Your task to perform on an android device: find photos in the google photos app Image 0: 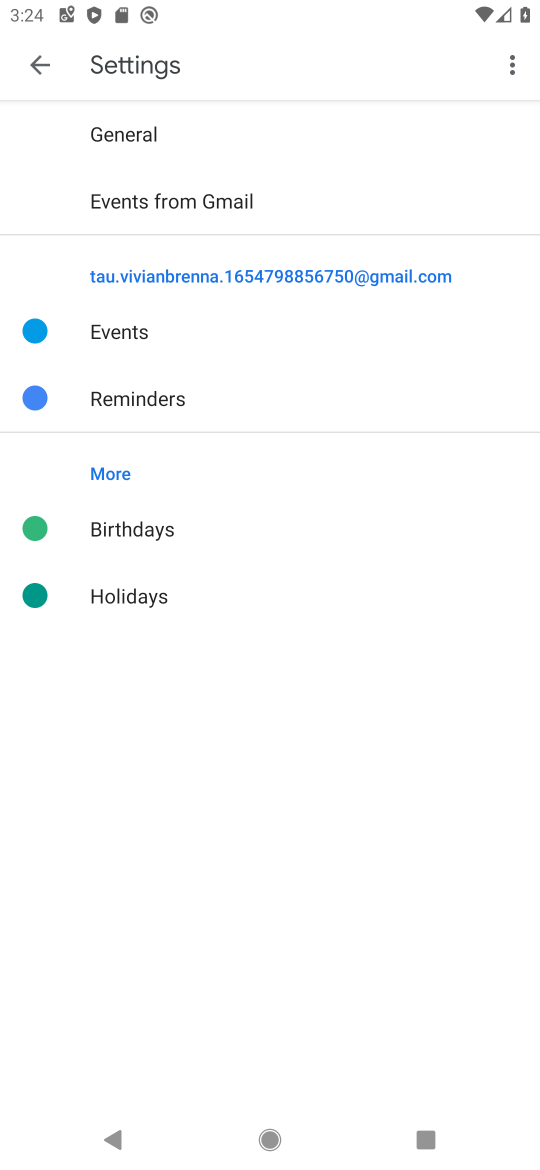
Step 0: press home button
Your task to perform on an android device: find photos in the google photos app Image 1: 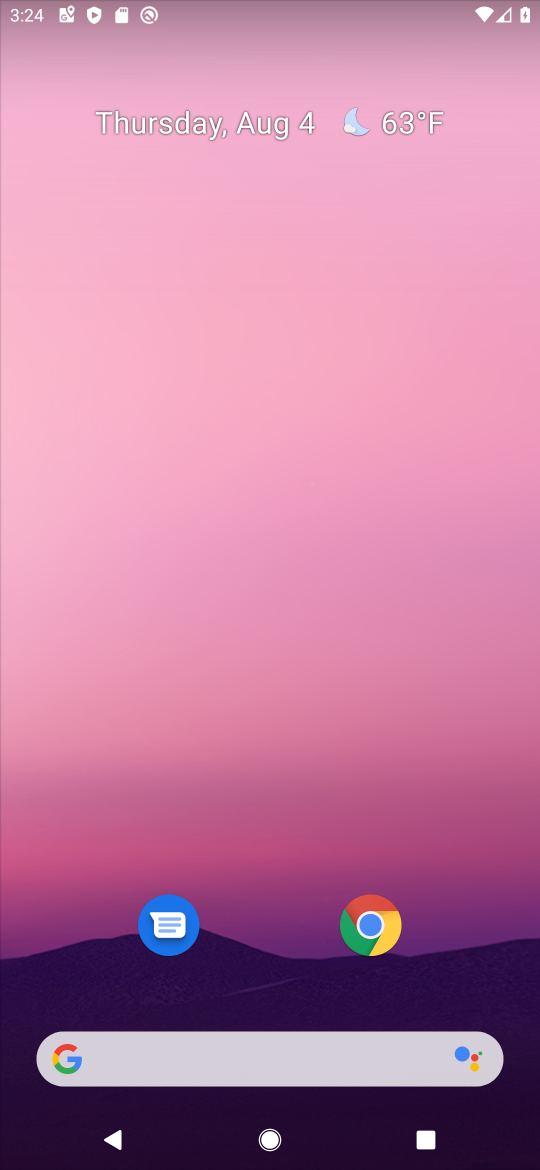
Step 1: drag from (253, 967) to (391, 57)
Your task to perform on an android device: find photos in the google photos app Image 2: 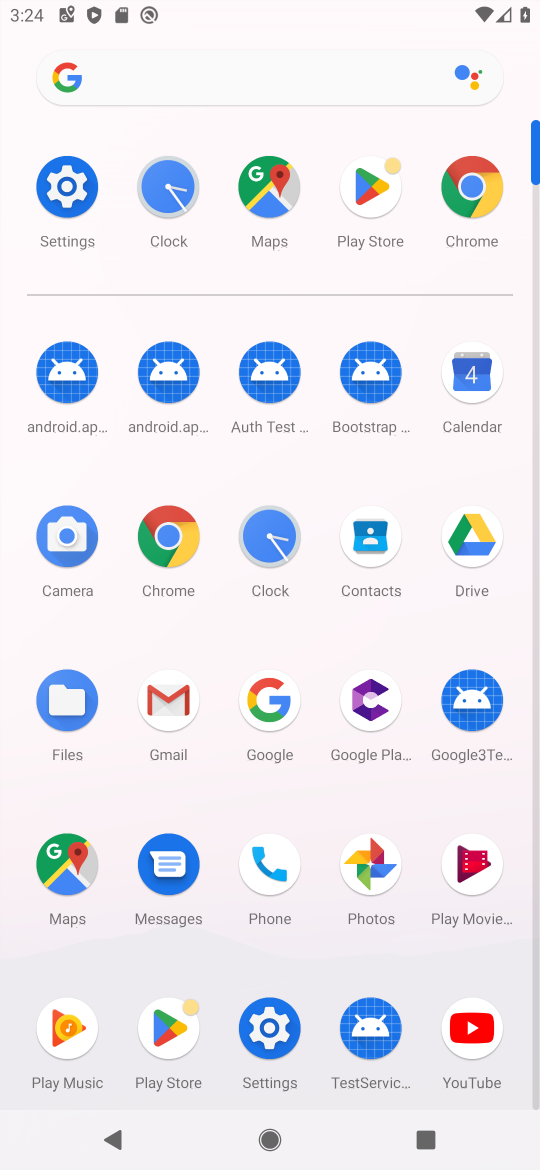
Step 2: click (367, 881)
Your task to perform on an android device: find photos in the google photos app Image 3: 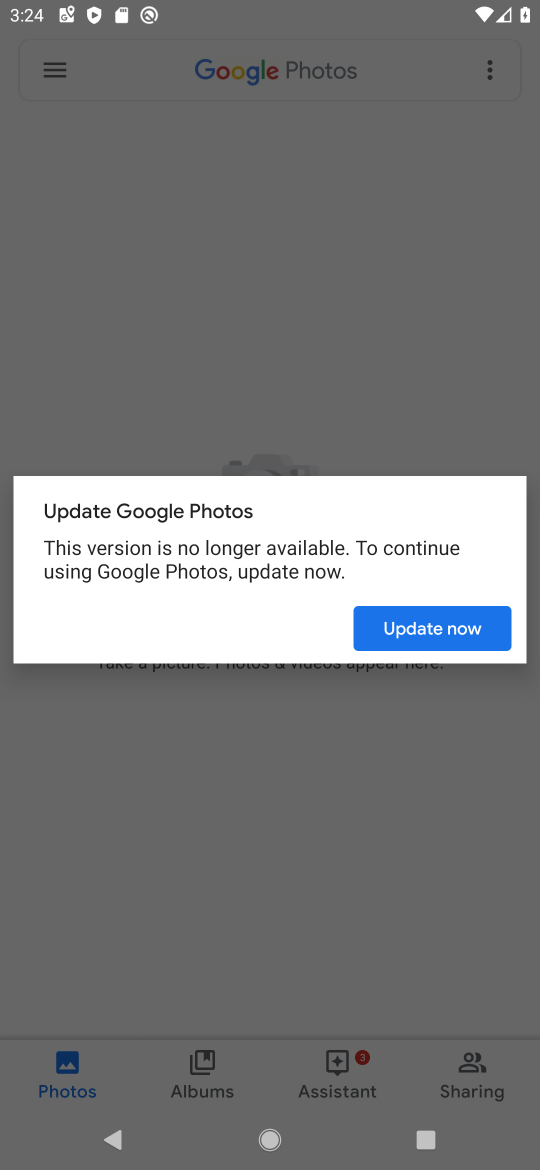
Step 3: click (457, 637)
Your task to perform on an android device: find photos in the google photos app Image 4: 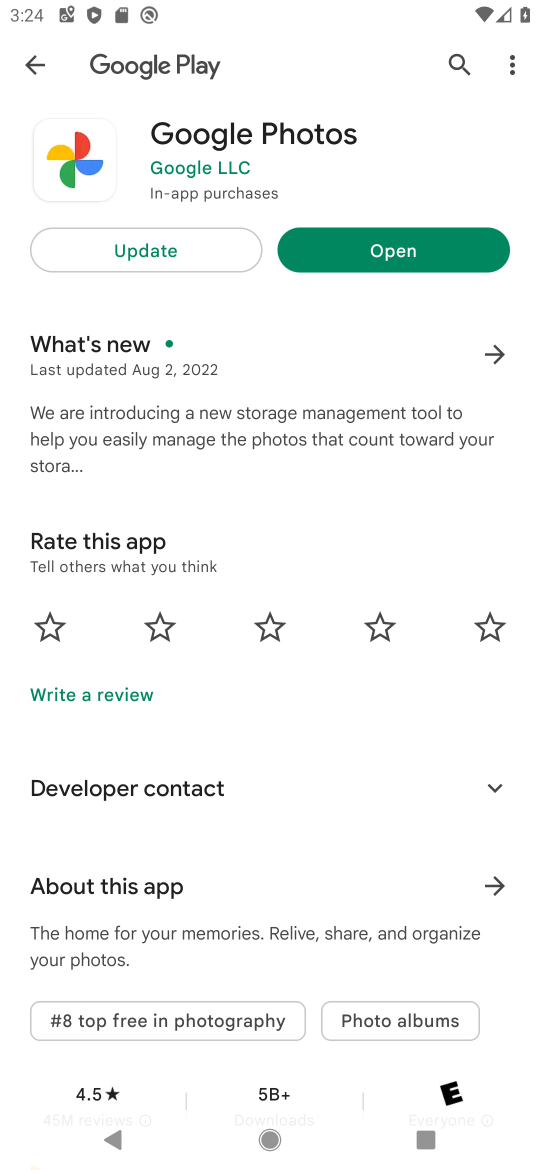
Step 4: click (196, 260)
Your task to perform on an android device: find photos in the google photos app Image 5: 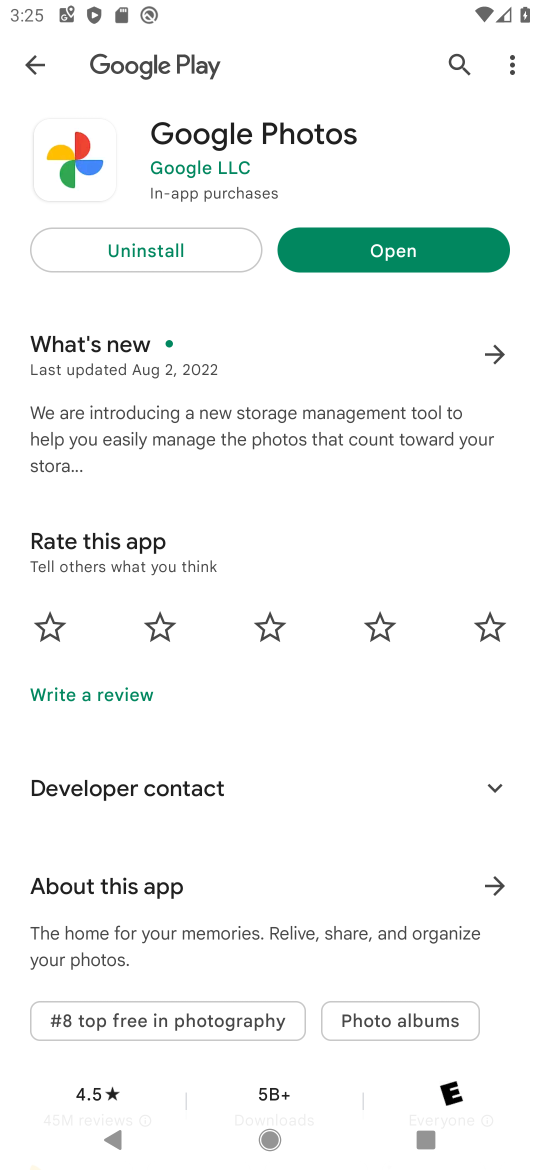
Step 5: click (421, 258)
Your task to perform on an android device: find photos in the google photos app Image 6: 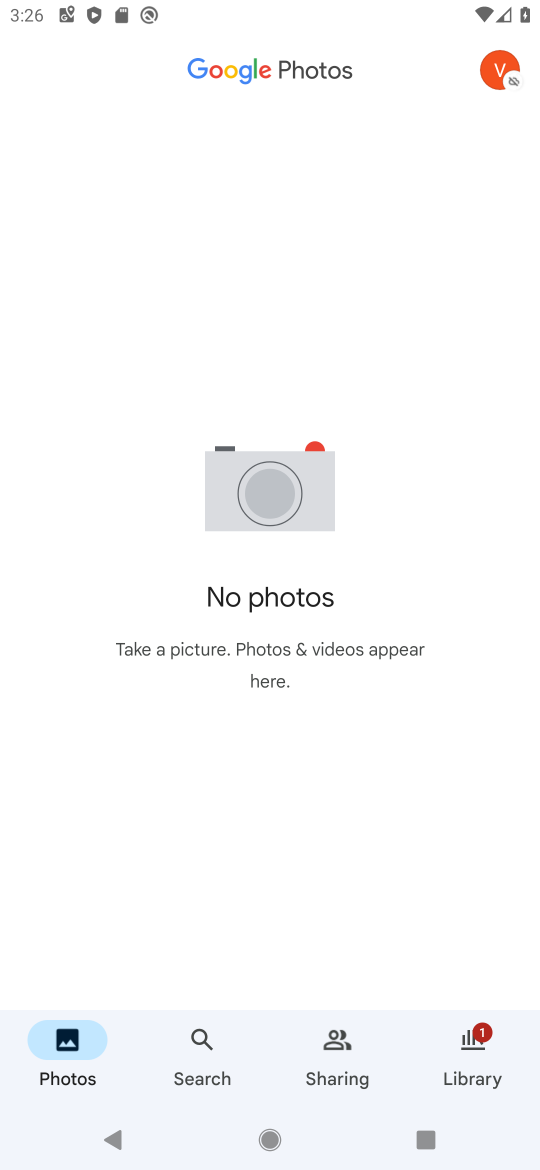
Step 6: click (201, 1048)
Your task to perform on an android device: find photos in the google photos app Image 7: 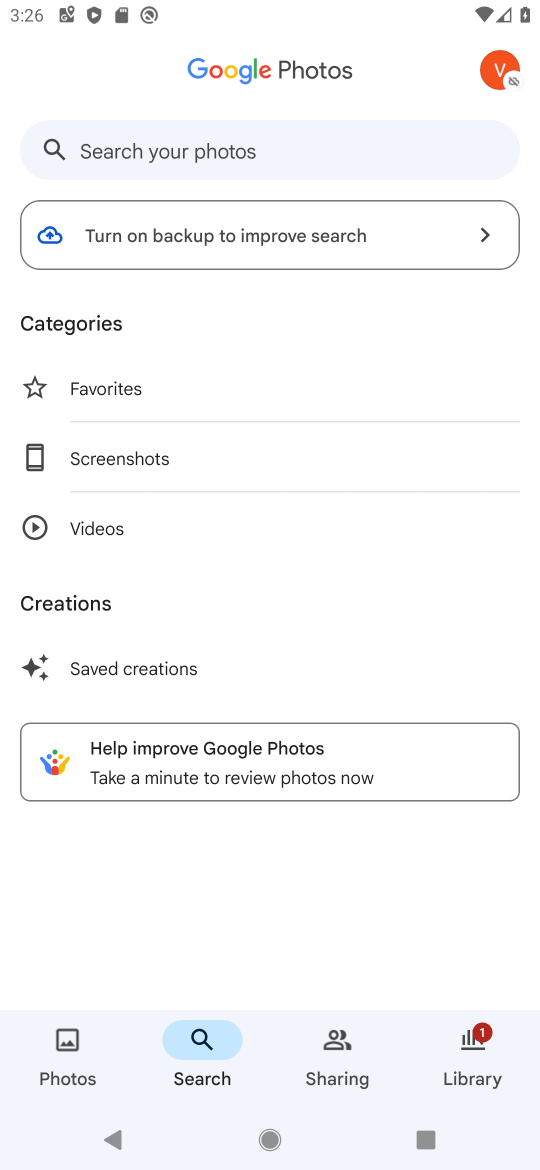
Step 7: task complete